Your task to perform on an android device: turn pop-ups off in chrome Image 0: 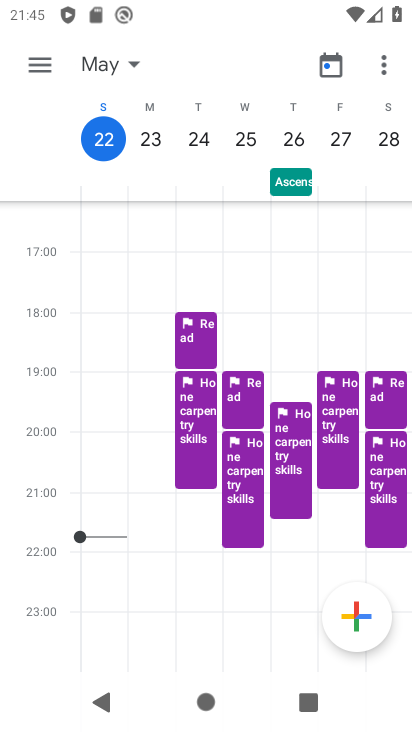
Step 0: press home button
Your task to perform on an android device: turn pop-ups off in chrome Image 1: 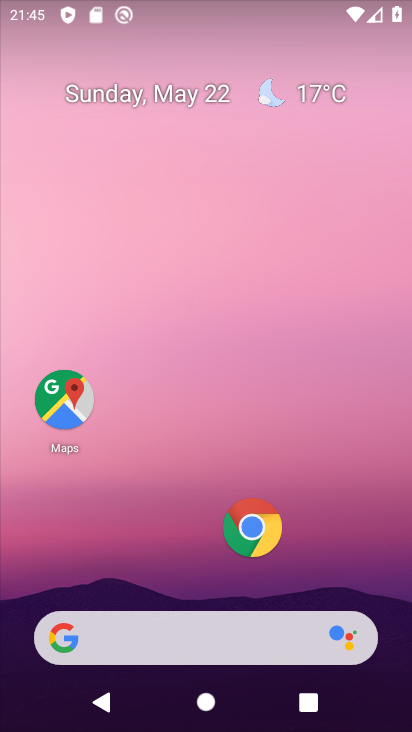
Step 1: click (252, 524)
Your task to perform on an android device: turn pop-ups off in chrome Image 2: 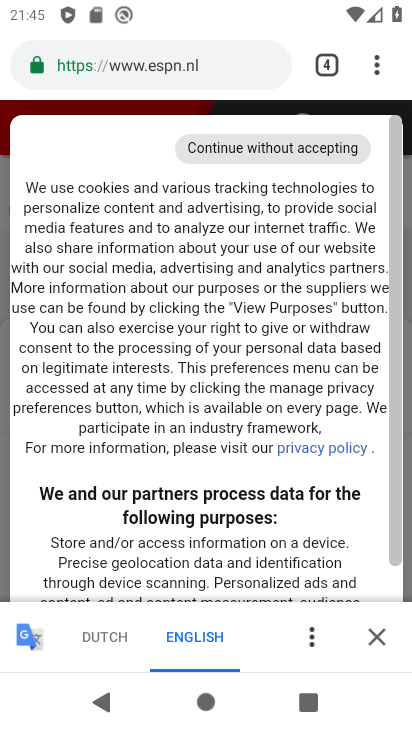
Step 2: click (374, 65)
Your task to perform on an android device: turn pop-ups off in chrome Image 3: 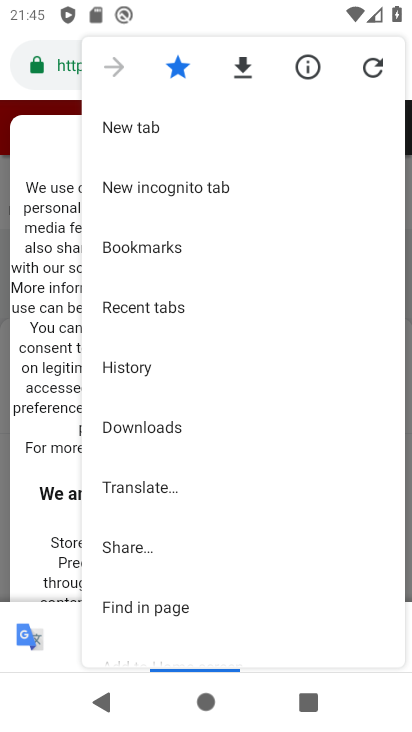
Step 3: drag from (203, 538) to (90, 200)
Your task to perform on an android device: turn pop-ups off in chrome Image 4: 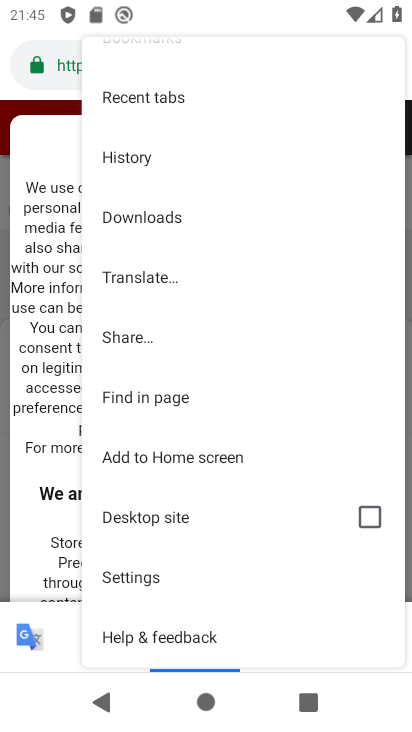
Step 4: click (144, 576)
Your task to perform on an android device: turn pop-ups off in chrome Image 5: 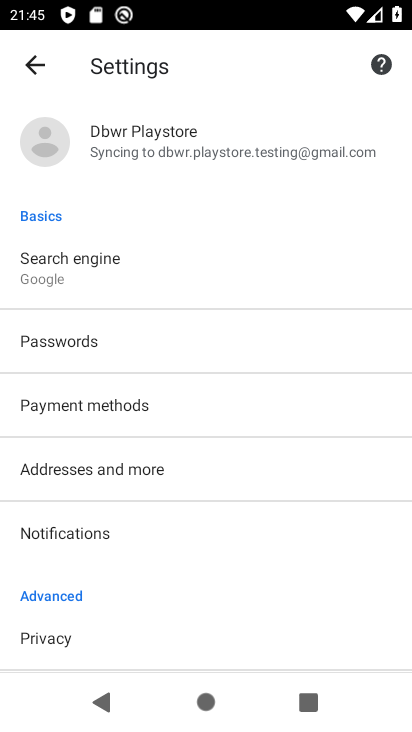
Step 5: drag from (215, 550) to (276, 284)
Your task to perform on an android device: turn pop-ups off in chrome Image 6: 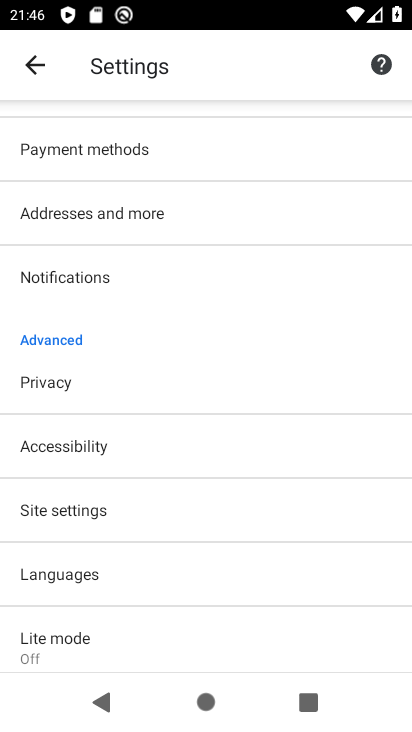
Step 6: click (85, 507)
Your task to perform on an android device: turn pop-ups off in chrome Image 7: 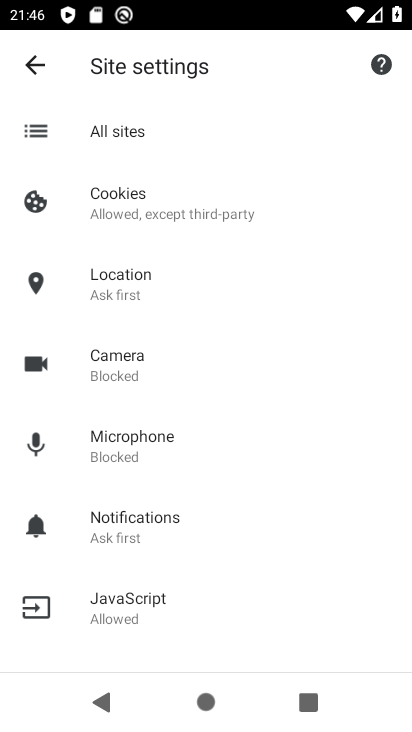
Step 7: drag from (237, 474) to (214, 256)
Your task to perform on an android device: turn pop-ups off in chrome Image 8: 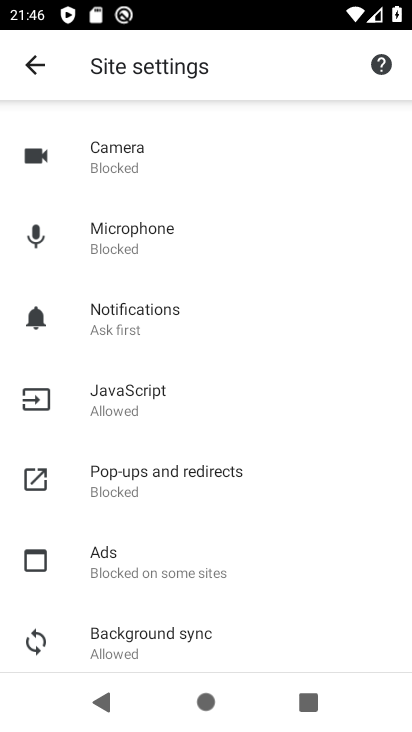
Step 8: click (138, 472)
Your task to perform on an android device: turn pop-ups off in chrome Image 9: 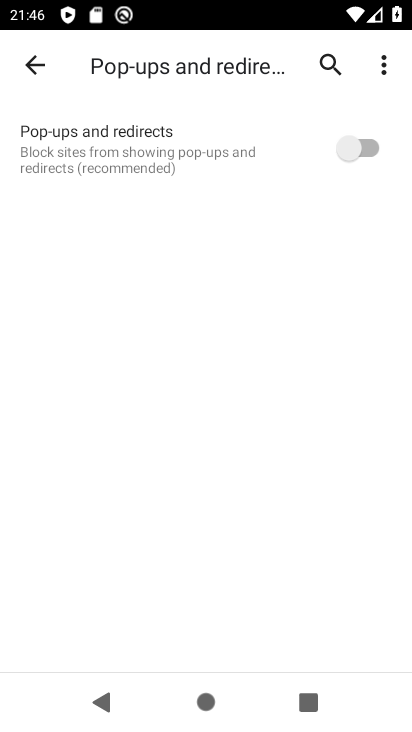
Step 9: task complete